Your task to perform on an android device: Search for sushi restaurants on Maps Image 0: 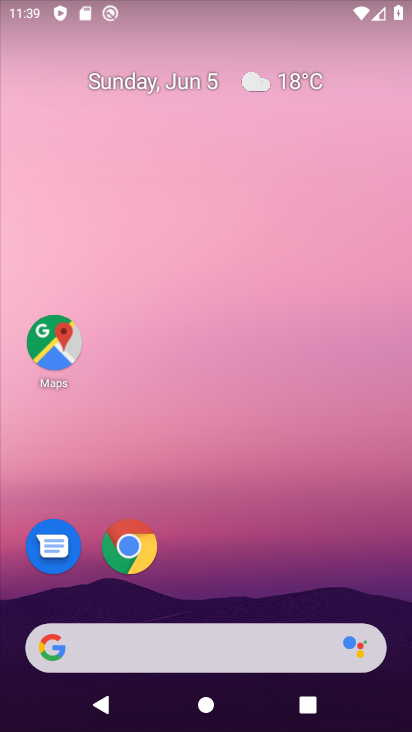
Step 0: click (49, 335)
Your task to perform on an android device: Search for sushi restaurants on Maps Image 1: 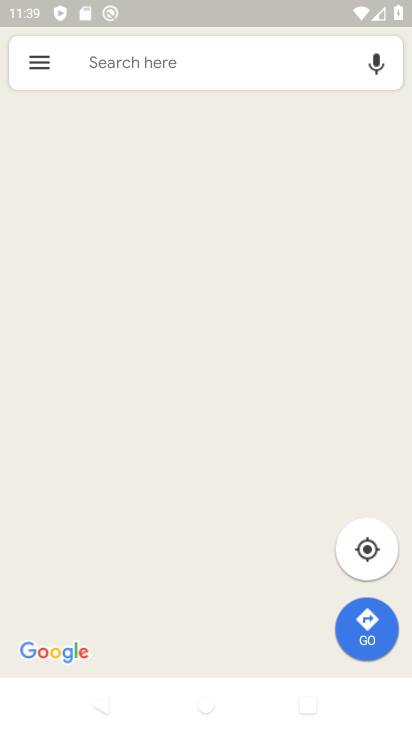
Step 1: click (162, 59)
Your task to perform on an android device: Search for sushi restaurants on Maps Image 2: 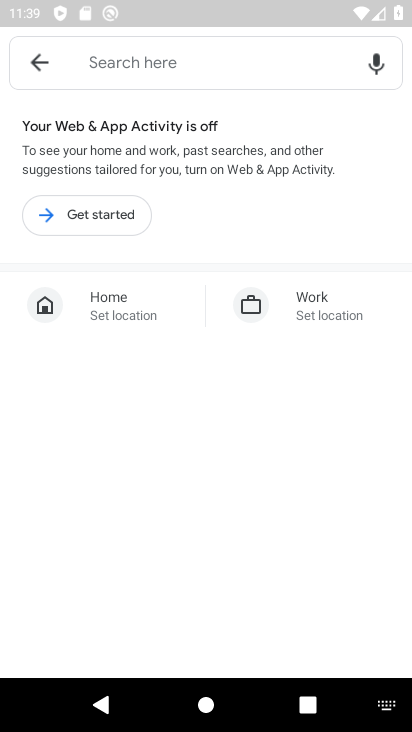
Step 2: click (192, 68)
Your task to perform on an android device: Search for sushi restaurants on Maps Image 3: 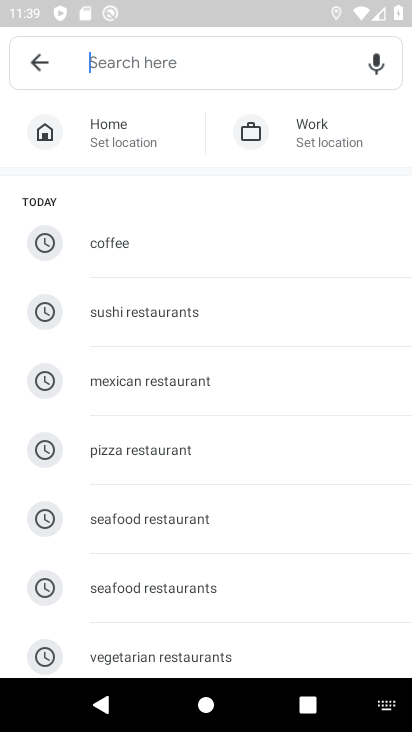
Step 3: click (259, 312)
Your task to perform on an android device: Search for sushi restaurants on Maps Image 4: 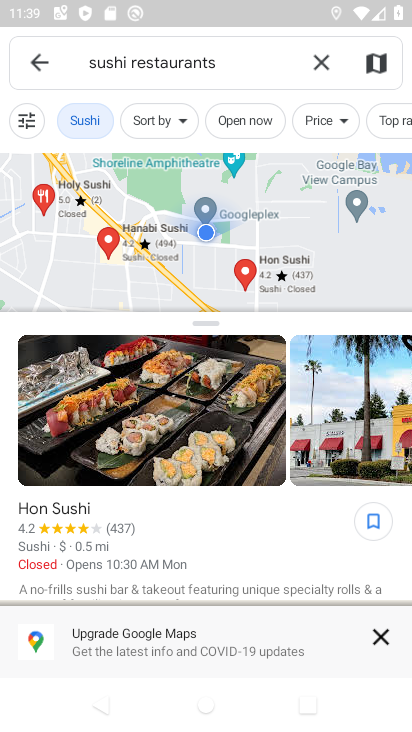
Step 4: task complete